Your task to perform on an android device: turn off javascript in the chrome app Image 0: 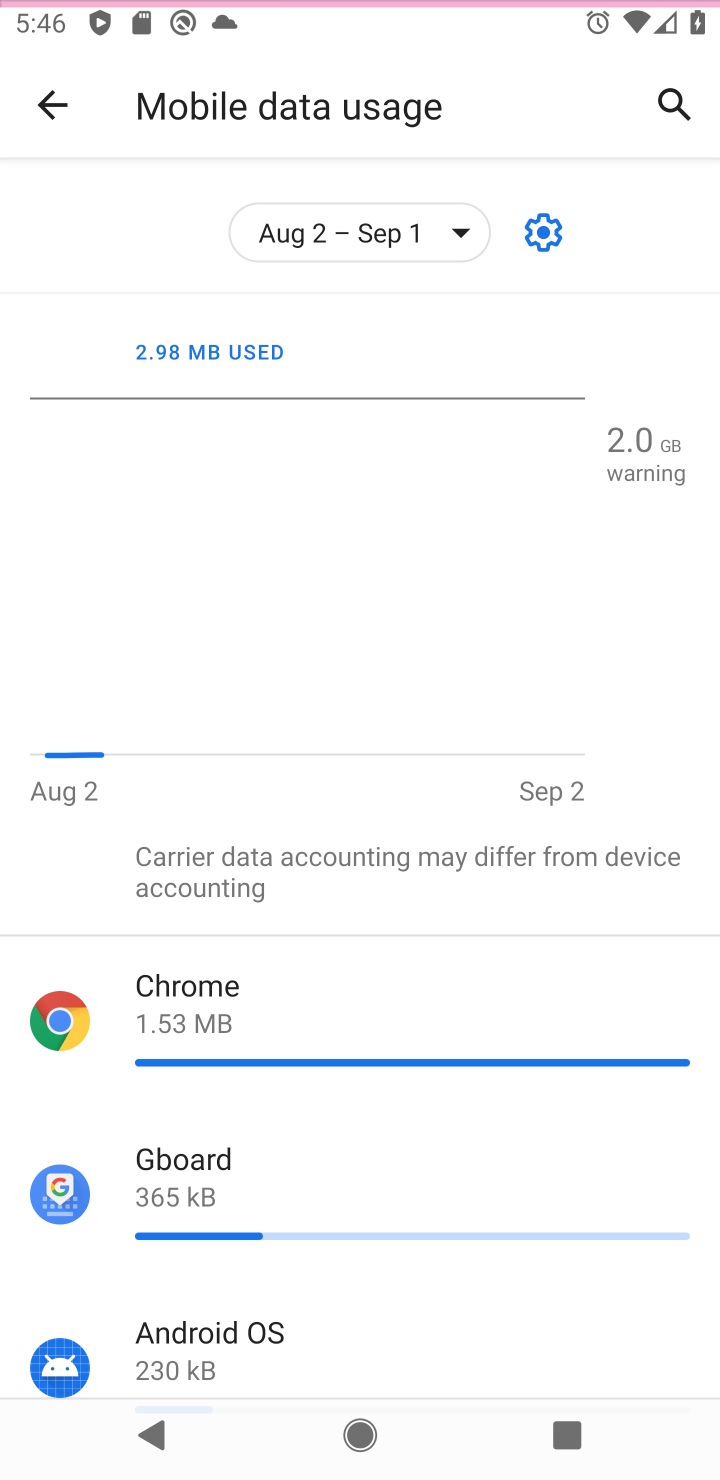
Step 0: press home button
Your task to perform on an android device: turn off javascript in the chrome app Image 1: 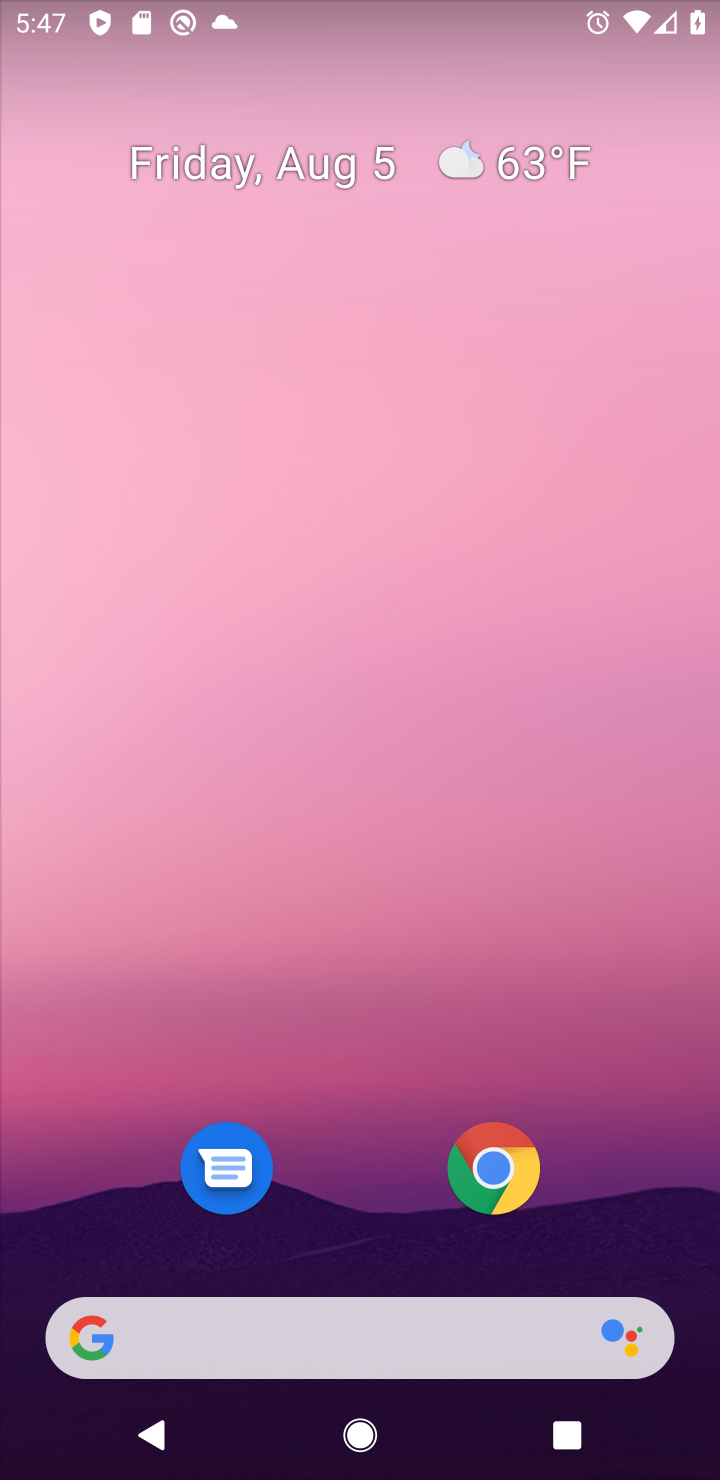
Step 1: click (493, 1187)
Your task to perform on an android device: turn off javascript in the chrome app Image 2: 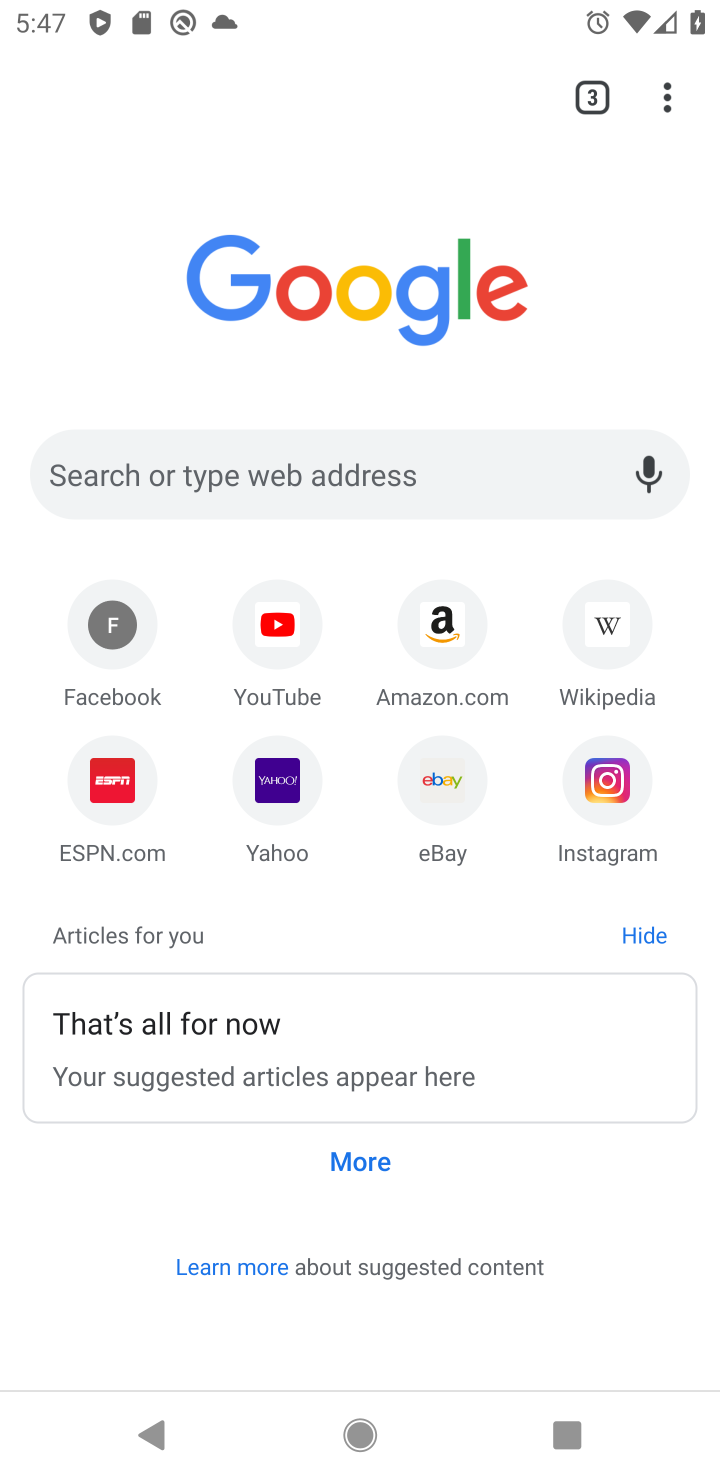
Step 2: drag from (675, 91) to (337, 822)
Your task to perform on an android device: turn off javascript in the chrome app Image 3: 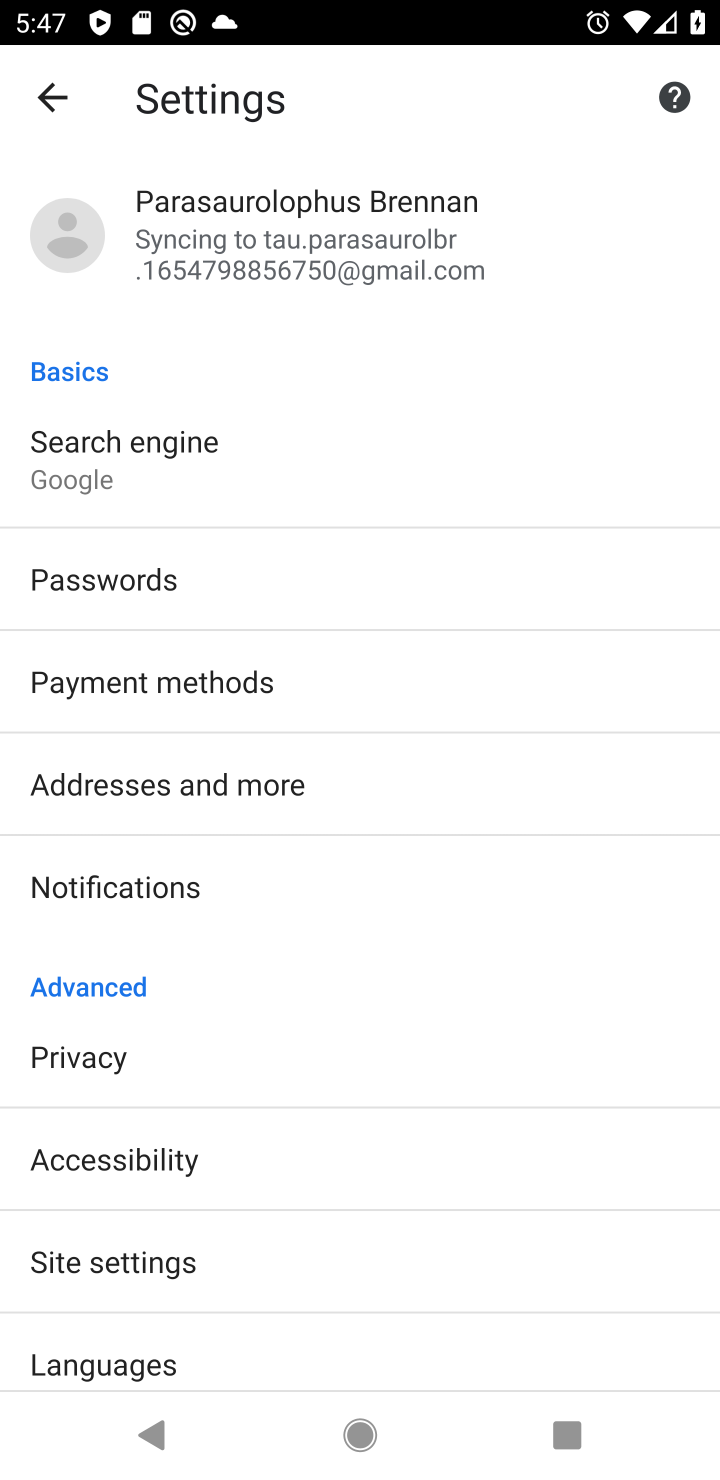
Step 3: click (97, 1263)
Your task to perform on an android device: turn off javascript in the chrome app Image 4: 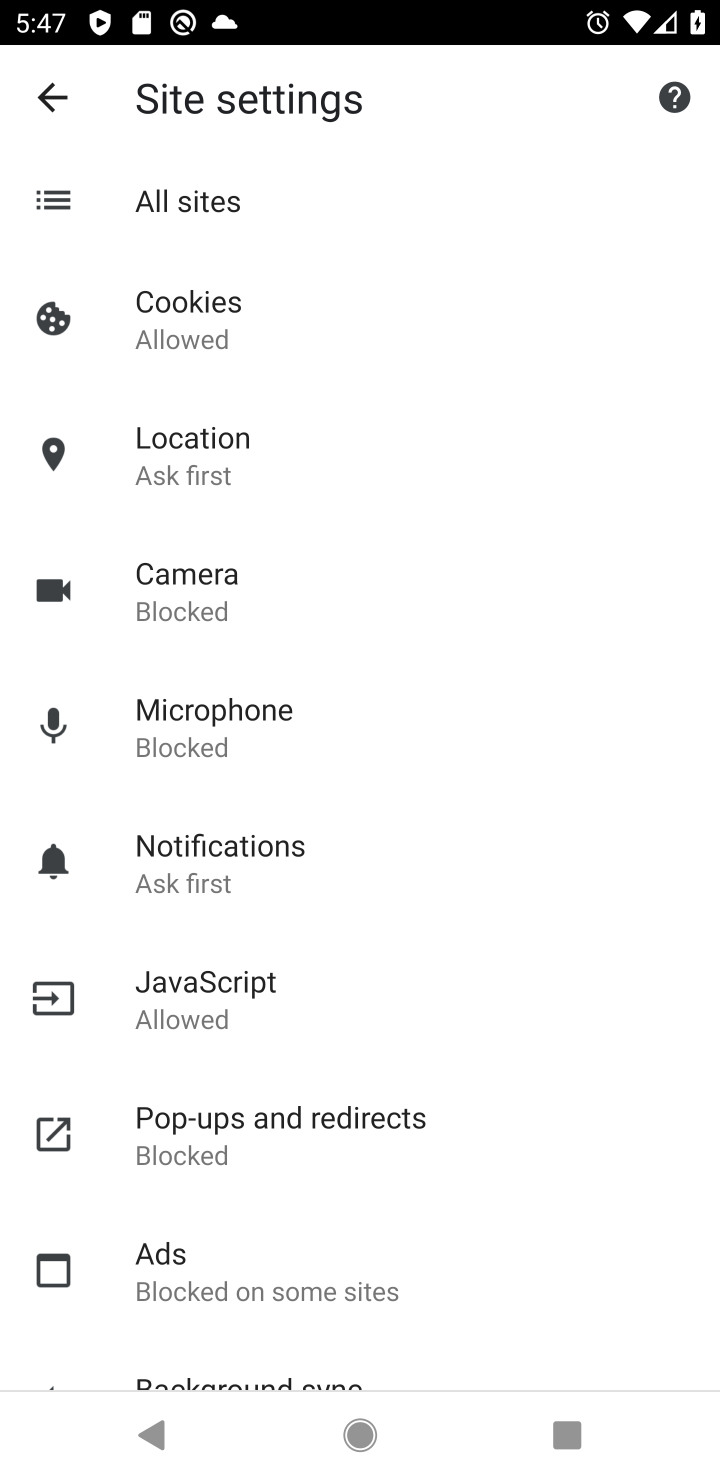
Step 4: click (187, 985)
Your task to perform on an android device: turn off javascript in the chrome app Image 5: 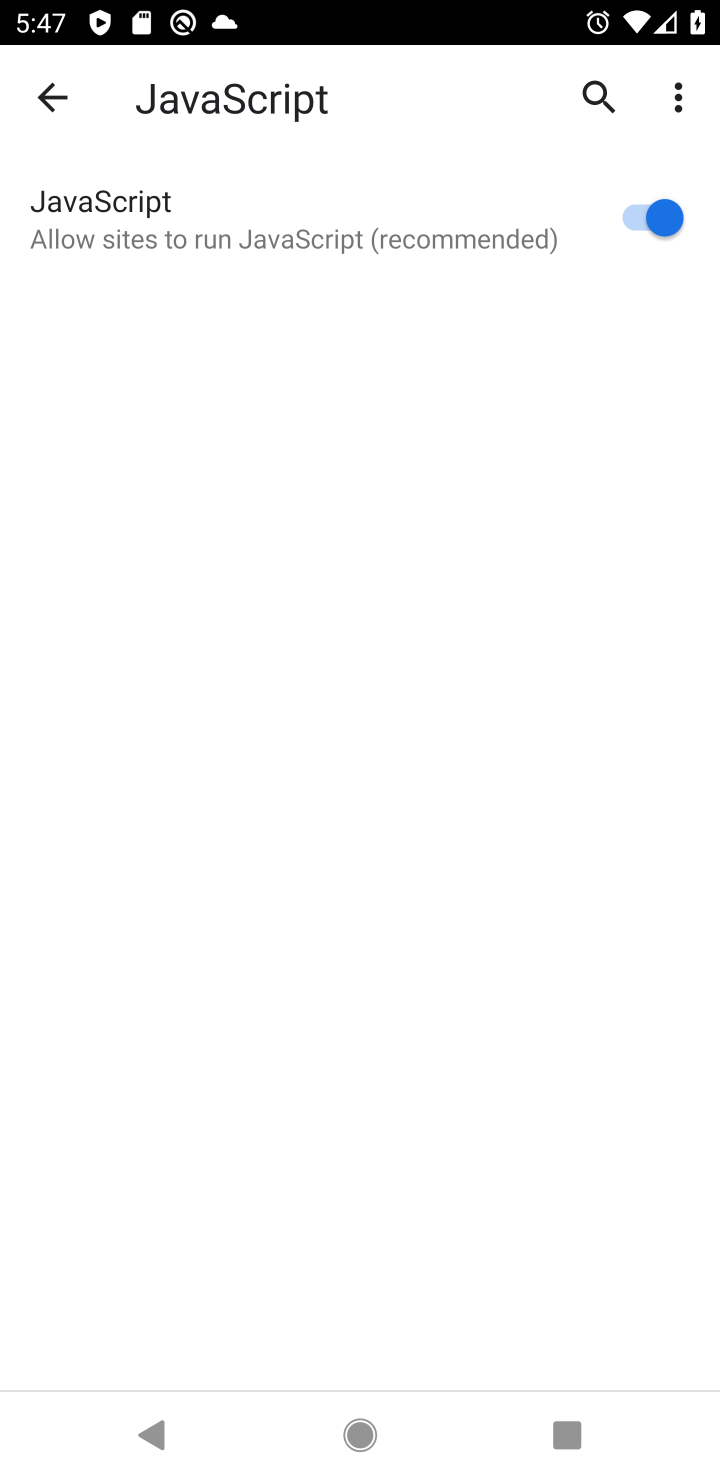
Step 5: click (662, 215)
Your task to perform on an android device: turn off javascript in the chrome app Image 6: 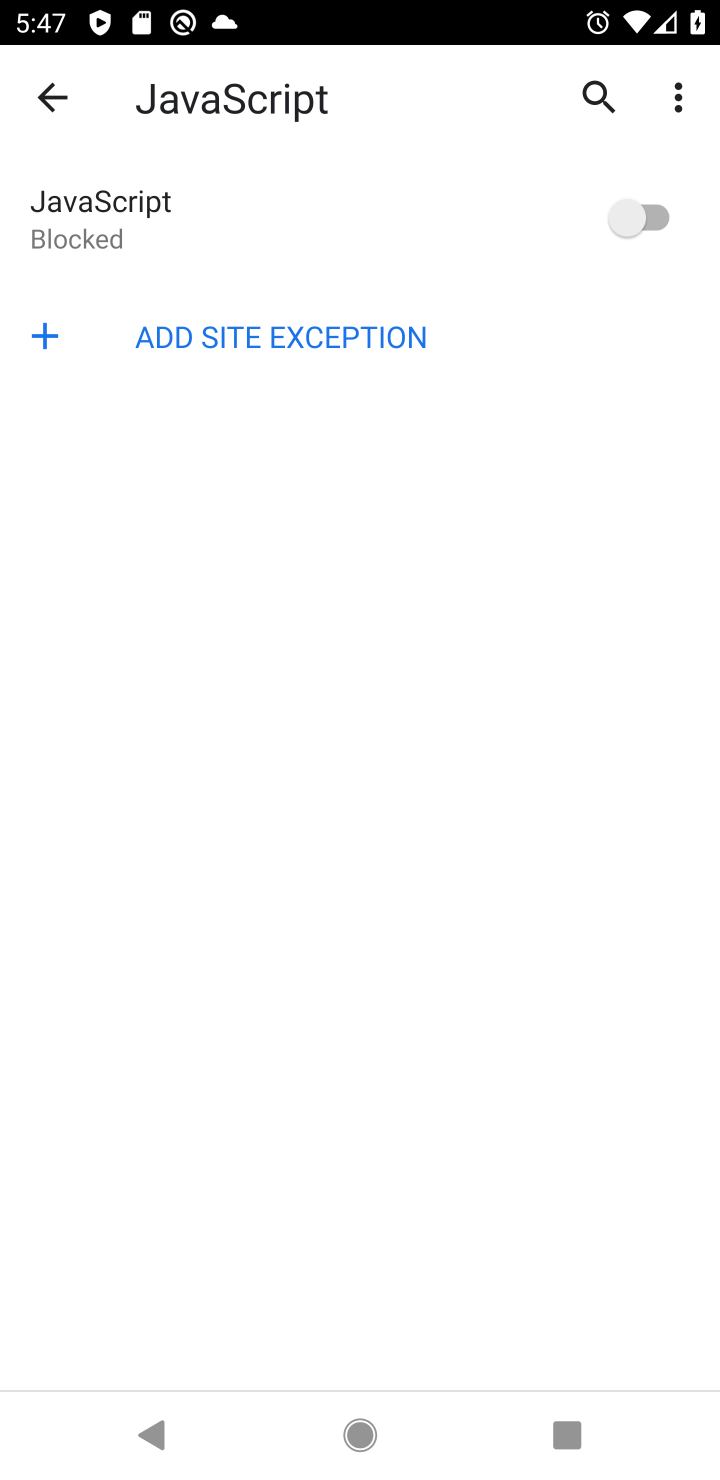
Step 6: task complete